Your task to perform on an android device: turn off notifications in google photos Image 0: 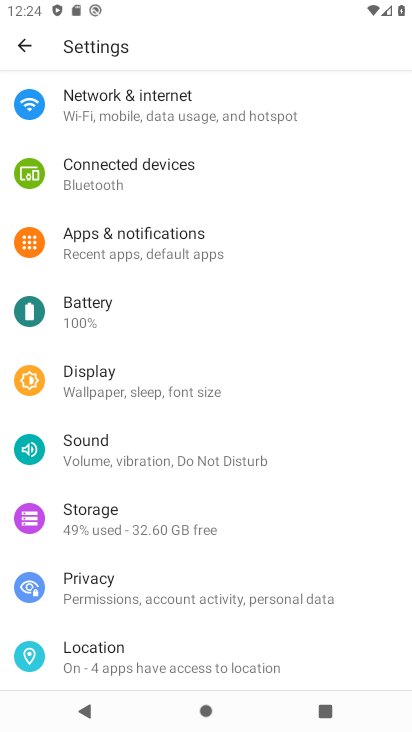
Step 0: drag from (313, 607) to (32, 100)
Your task to perform on an android device: turn off notifications in google photos Image 1: 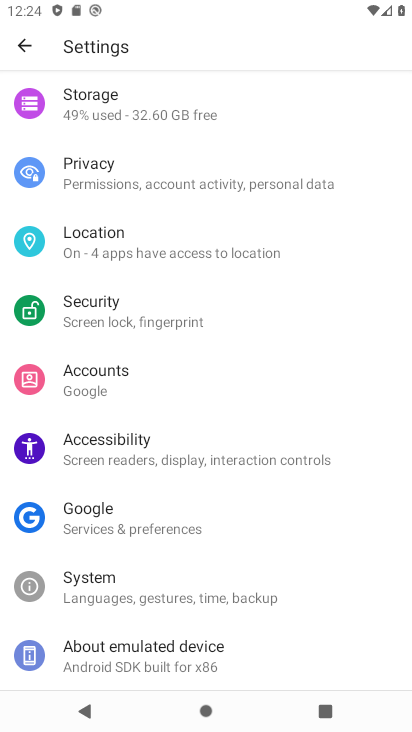
Step 1: press home button
Your task to perform on an android device: turn off notifications in google photos Image 2: 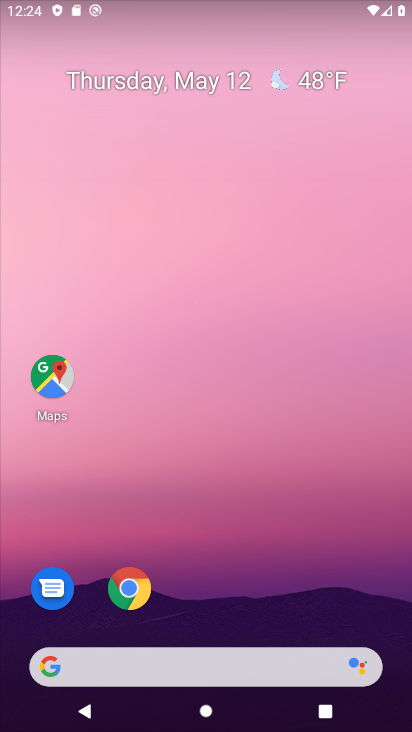
Step 2: drag from (351, 584) to (223, 170)
Your task to perform on an android device: turn off notifications in google photos Image 3: 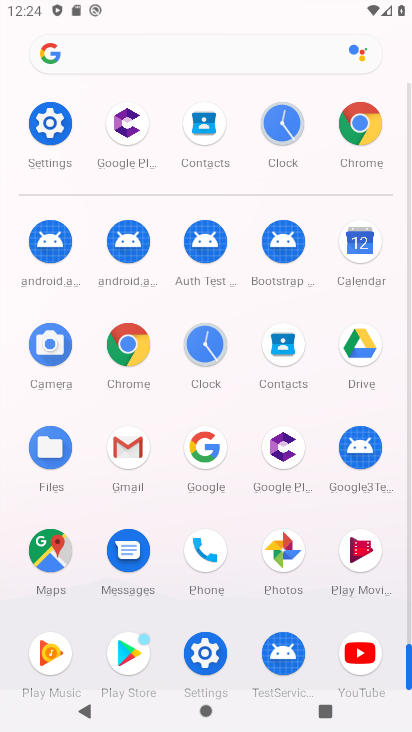
Step 3: click (285, 546)
Your task to perform on an android device: turn off notifications in google photos Image 4: 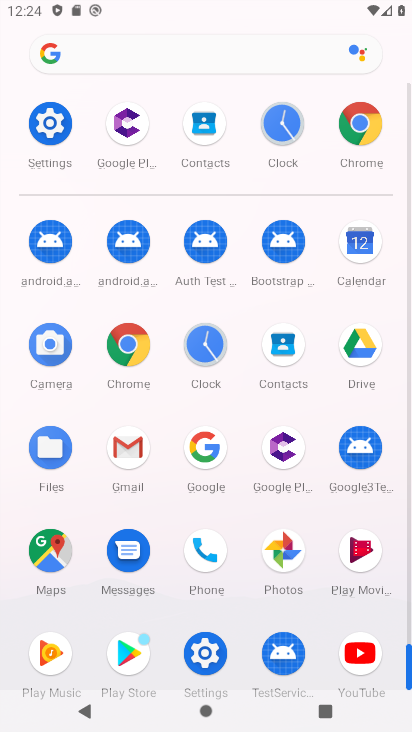
Step 4: click (285, 546)
Your task to perform on an android device: turn off notifications in google photos Image 5: 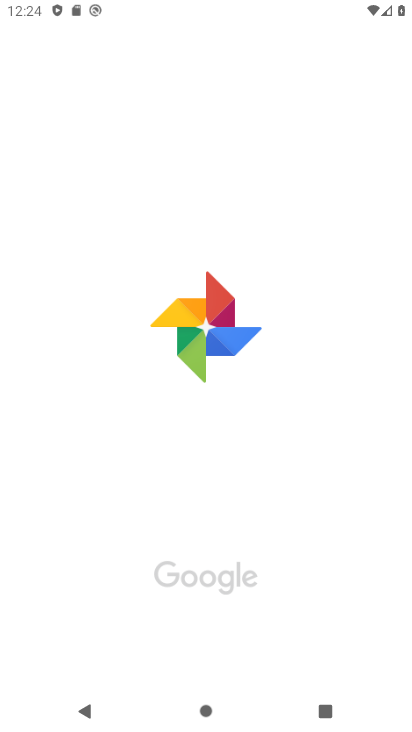
Step 5: click (285, 546)
Your task to perform on an android device: turn off notifications in google photos Image 6: 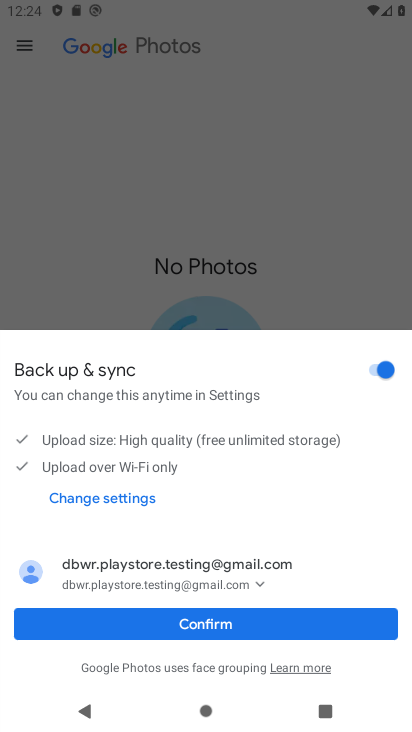
Step 6: click (224, 620)
Your task to perform on an android device: turn off notifications in google photos Image 7: 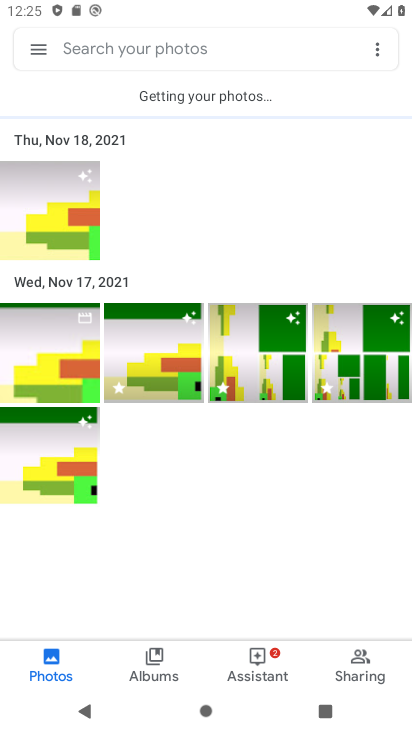
Step 7: click (35, 46)
Your task to perform on an android device: turn off notifications in google photos Image 8: 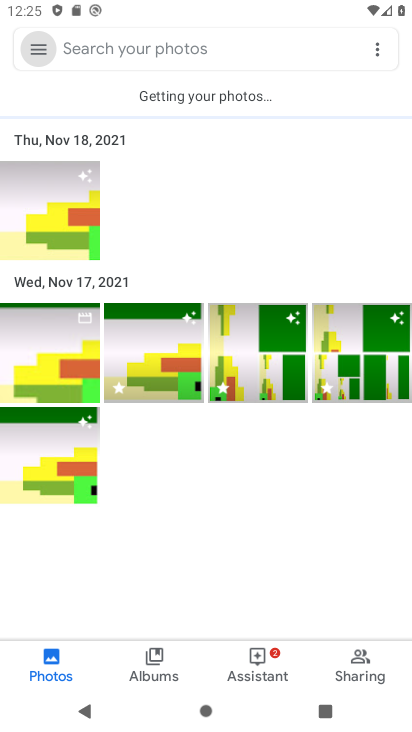
Step 8: click (37, 47)
Your task to perform on an android device: turn off notifications in google photos Image 9: 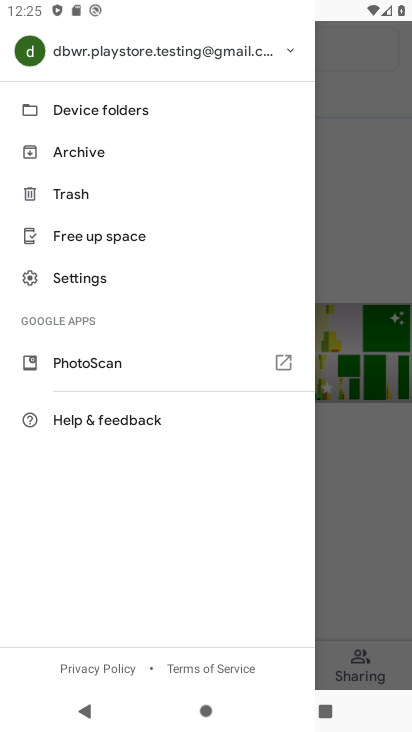
Step 9: click (78, 275)
Your task to perform on an android device: turn off notifications in google photos Image 10: 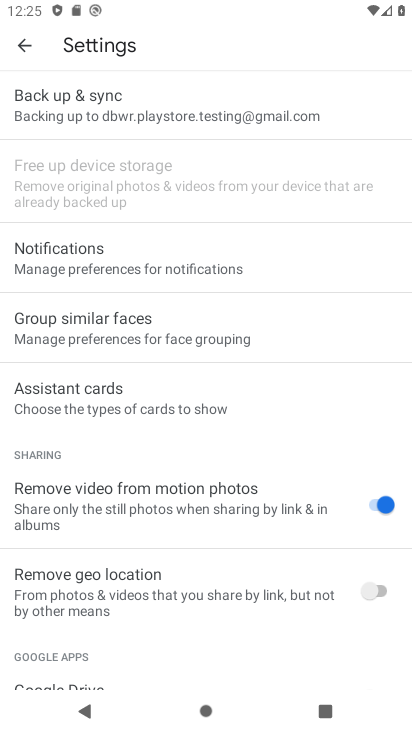
Step 10: click (70, 264)
Your task to perform on an android device: turn off notifications in google photos Image 11: 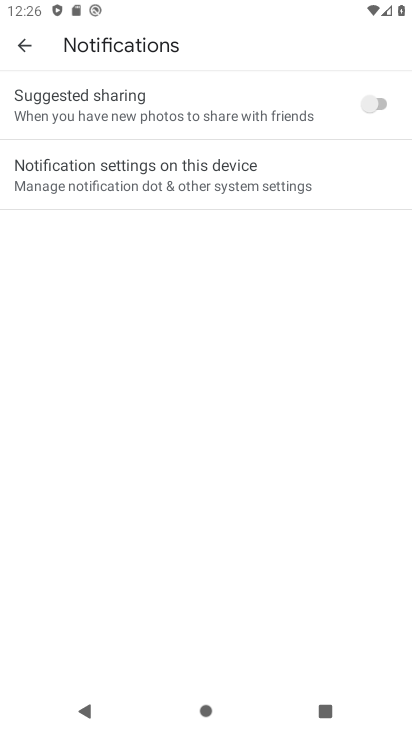
Step 11: drag from (260, 715) to (226, 317)
Your task to perform on an android device: turn off notifications in google photos Image 12: 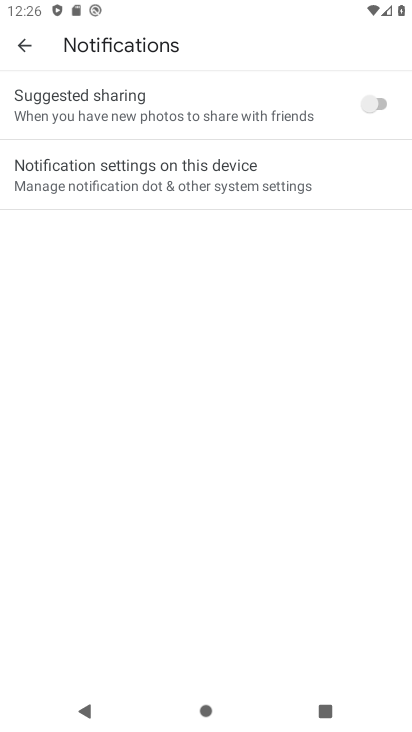
Step 12: click (29, 44)
Your task to perform on an android device: turn off notifications in google photos Image 13: 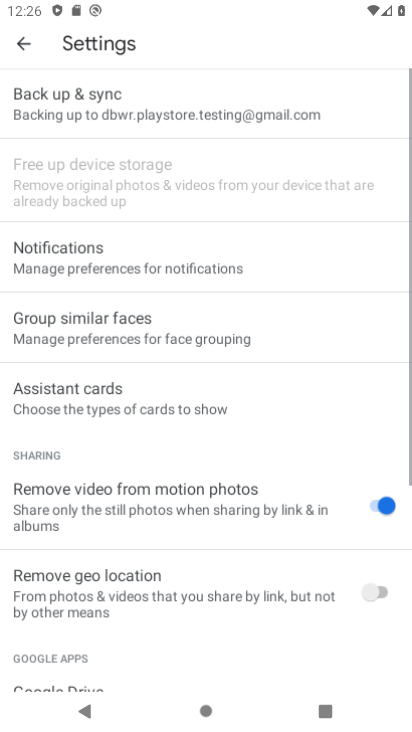
Step 13: click (32, 51)
Your task to perform on an android device: turn off notifications in google photos Image 14: 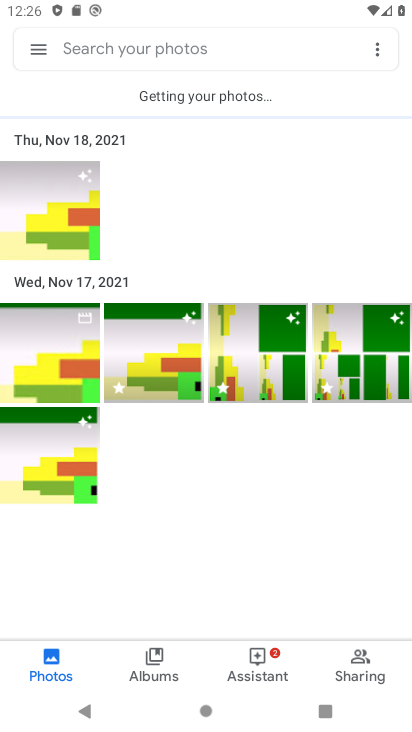
Step 14: drag from (49, 49) to (120, 317)
Your task to perform on an android device: turn off notifications in google photos Image 15: 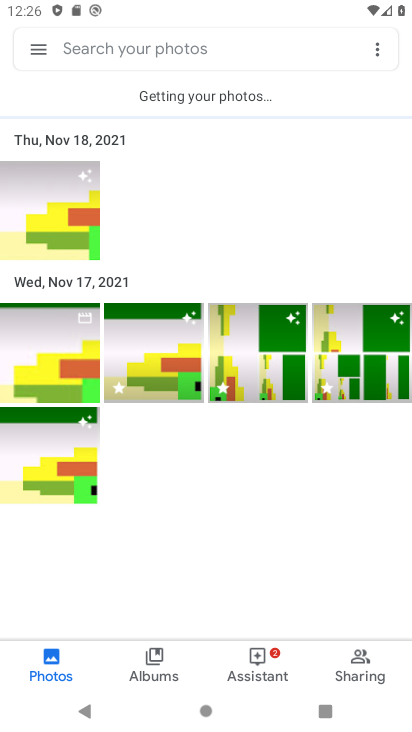
Step 15: click (43, 45)
Your task to perform on an android device: turn off notifications in google photos Image 16: 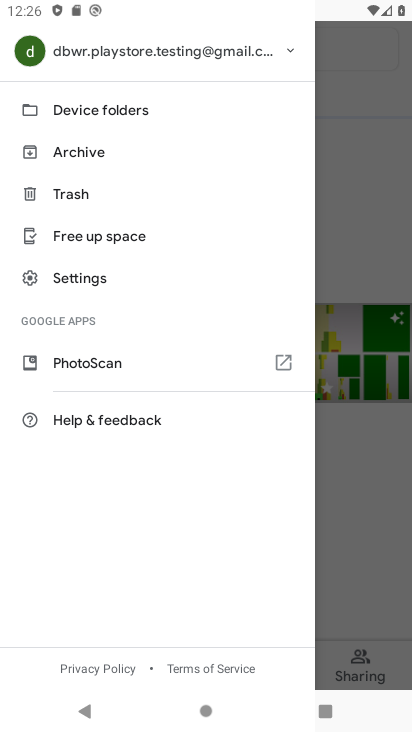
Step 16: click (89, 282)
Your task to perform on an android device: turn off notifications in google photos Image 17: 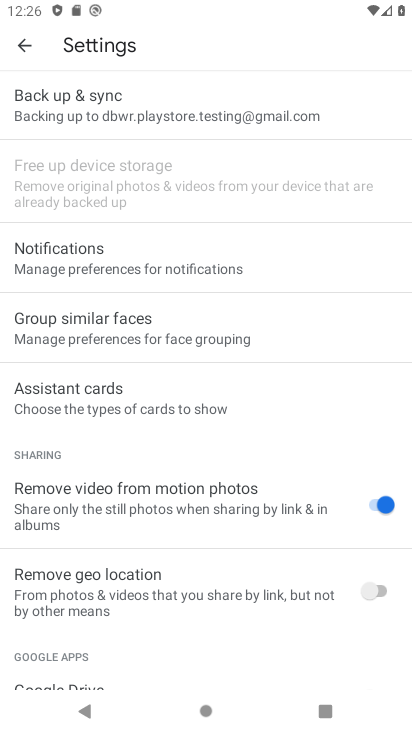
Step 17: click (93, 264)
Your task to perform on an android device: turn off notifications in google photos Image 18: 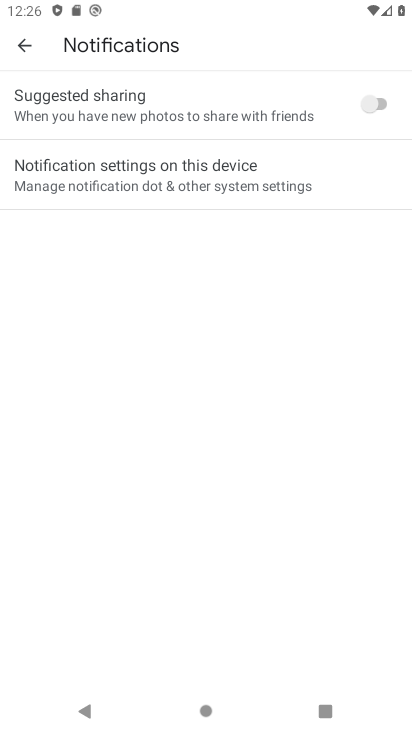
Step 18: click (248, 173)
Your task to perform on an android device: turn off notifications in google photos Image 19: 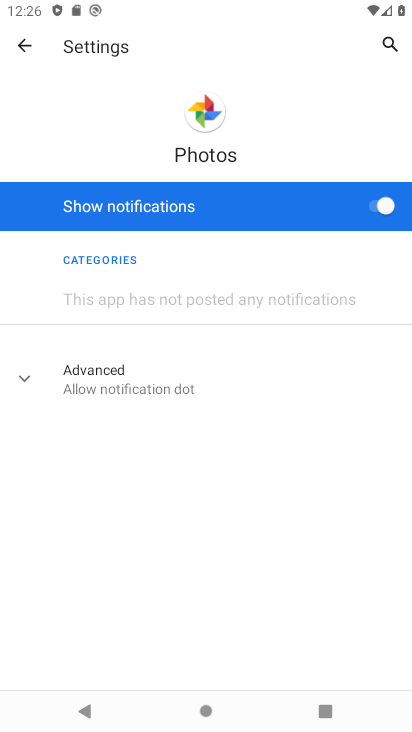
Step 19: click (380, 205)
Your task to perform on an android device: turn off notifications in google photos Image 20: 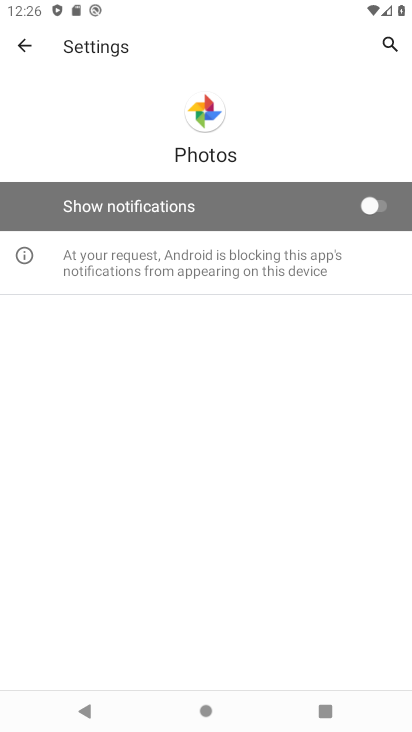
Step 20: task complete